Your task to perform on an android device: Search for "panasonic triple a" on target, select the first entry, add it to the cart, then select checkout. Image 0: 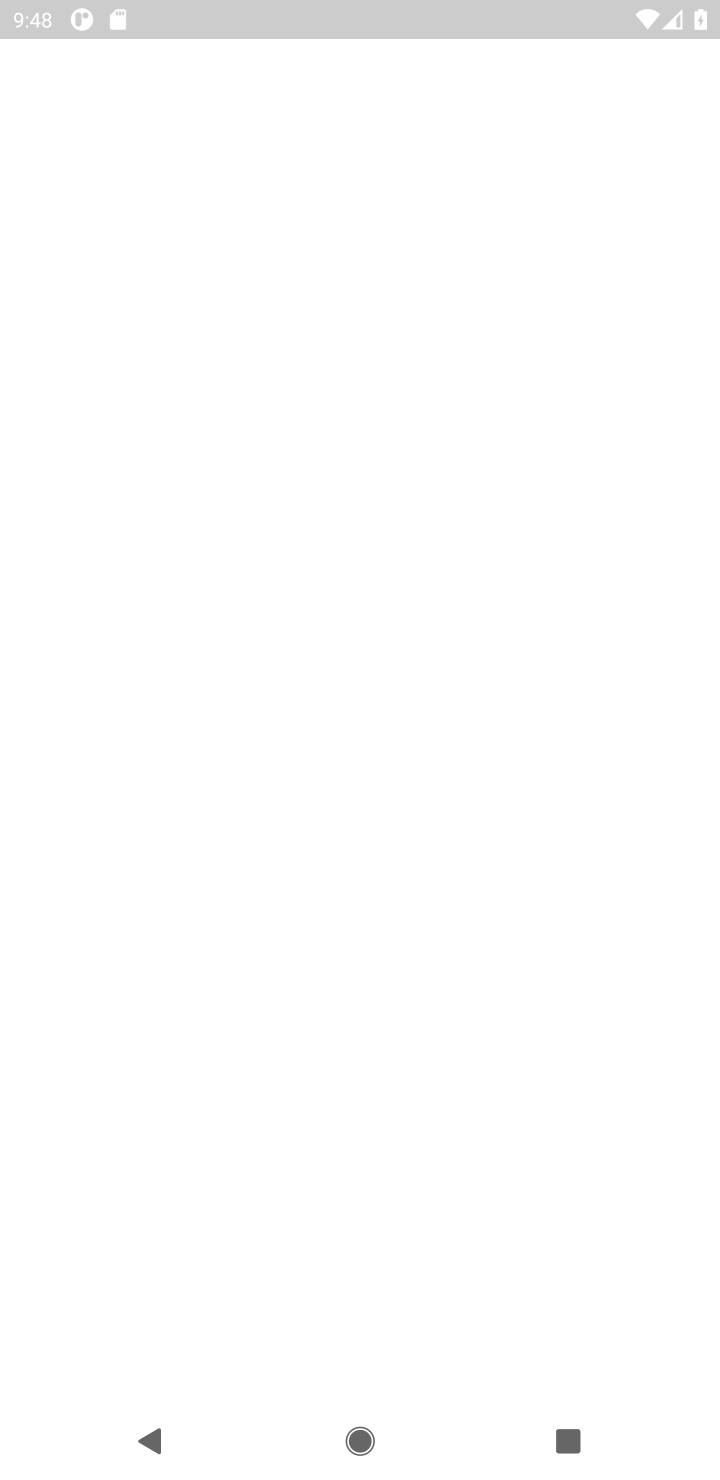
Step 0: press home button
Your task to perform on an android device: Search for "panasonic triple a" on target, select the first entry, add it to the cart, then select checkout. Image 1: 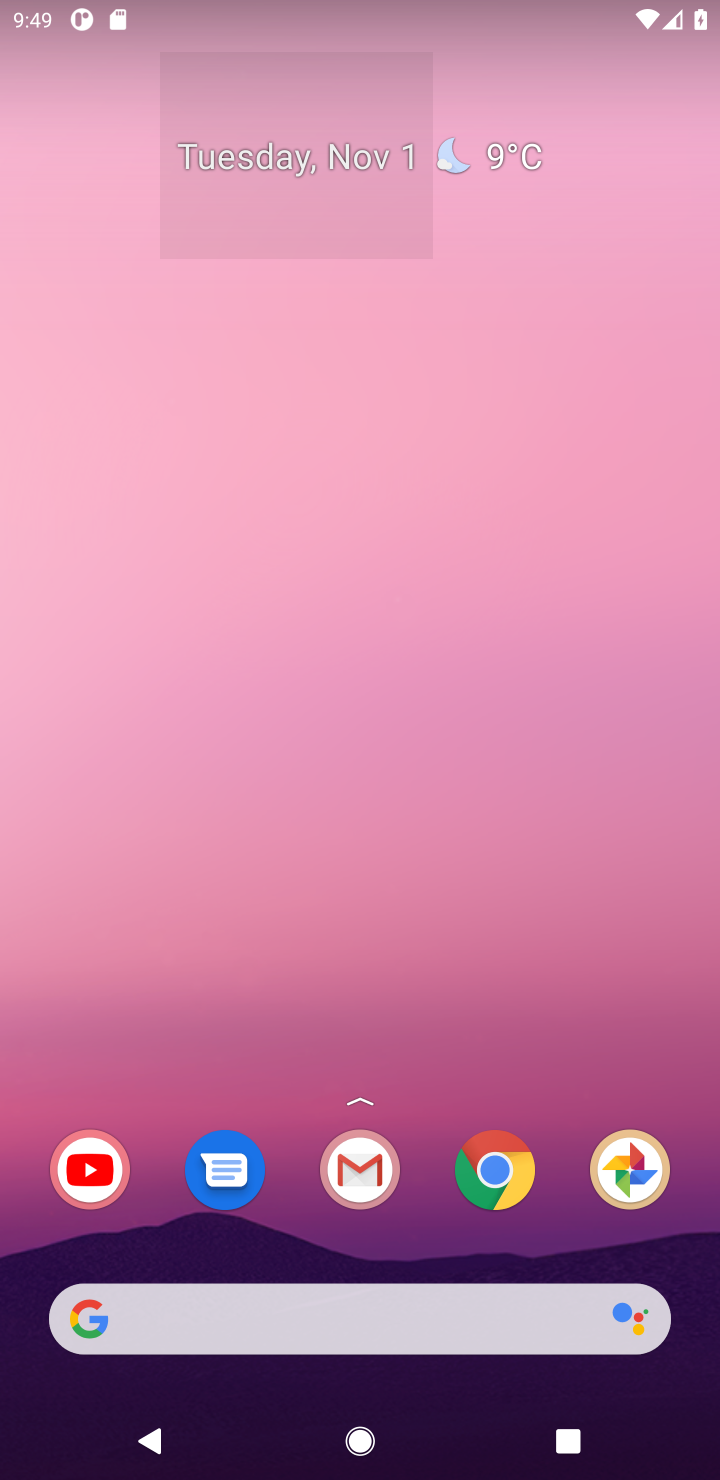
Step 1: click (482, 1178)
Your task to perform on an android device: Search for "panasonic triple a" on target, select the first entry, add it to the cart, then select checkout. Image 2: 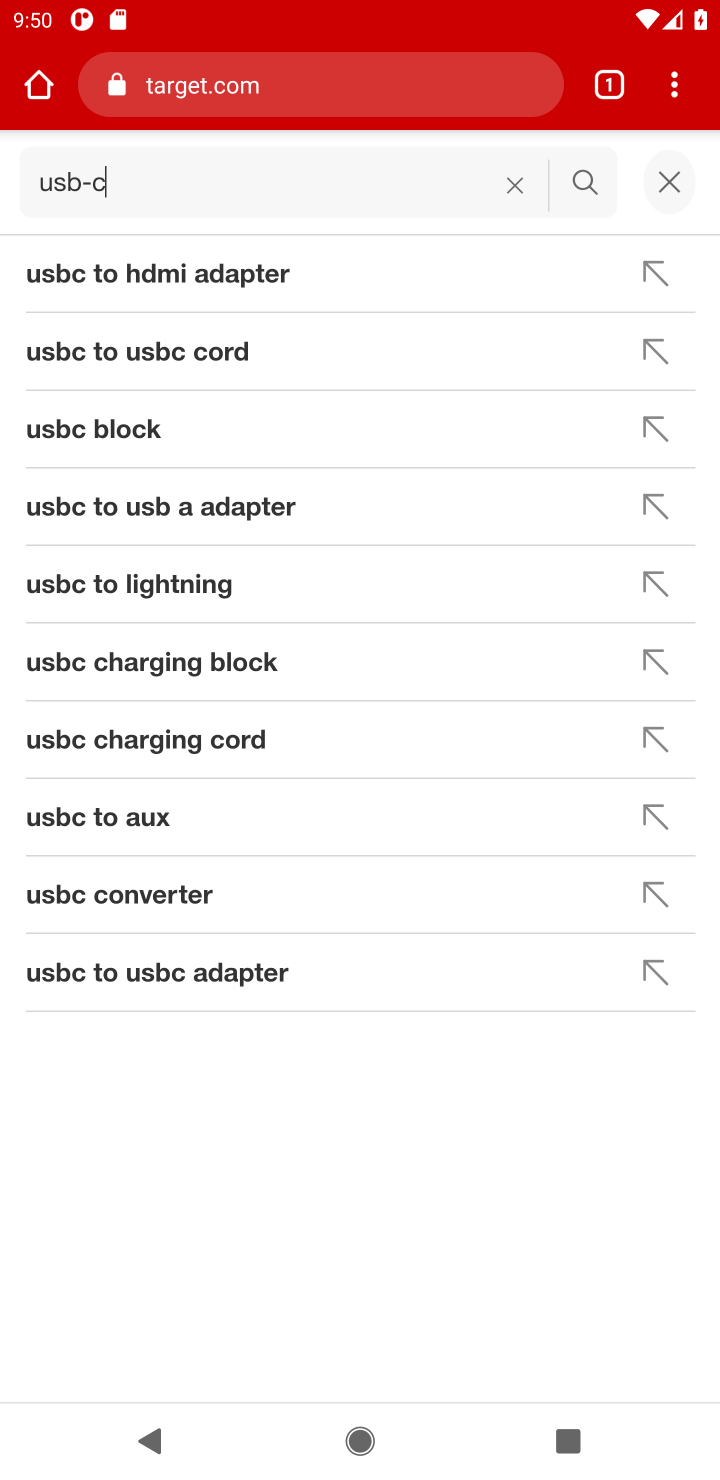
Step 2: click (659, 176)
Your task to perform on an android device: Search for "panasonic triple a" on target, select the first entry, add it to the cart, then select checkout. Image 3: 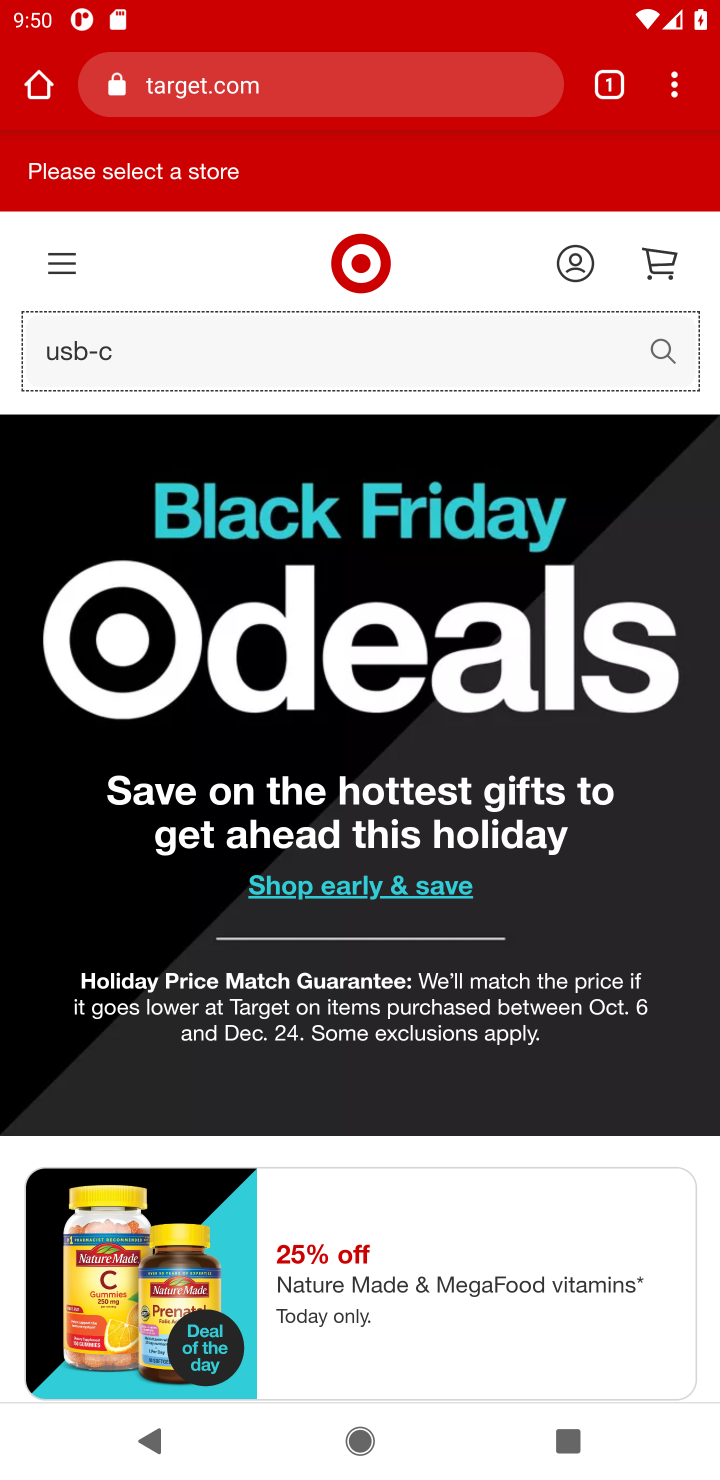
Step 3: click (545, 370)
Your task to perform on an android device: Search for "panasonic triple a" on target, select the first entry, add it to the cart, then select checkout. Image 4: 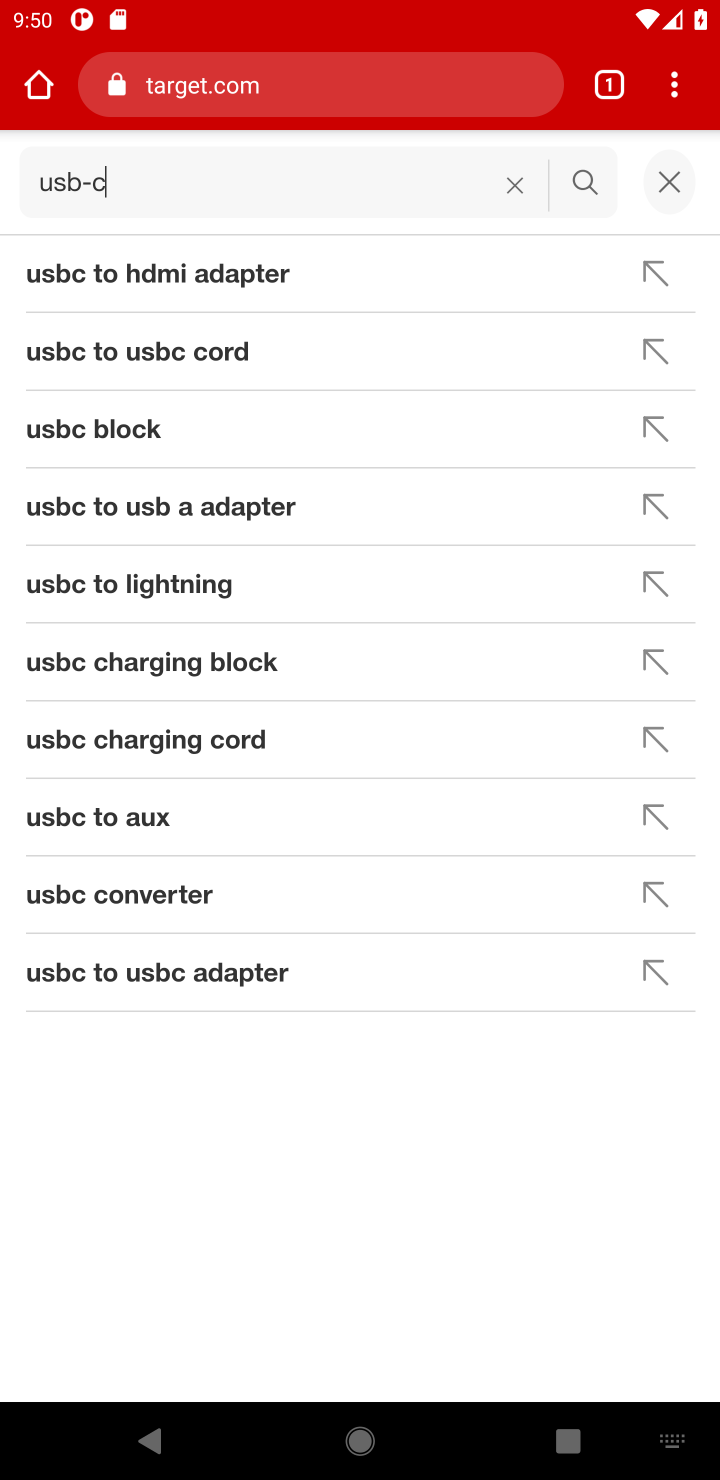
Step 4: click (663, 181)
Your task to perform on an android device: Search for "panasonic triple a" on target, select the first entry, add it to the cart, then select checkout. Image 5: 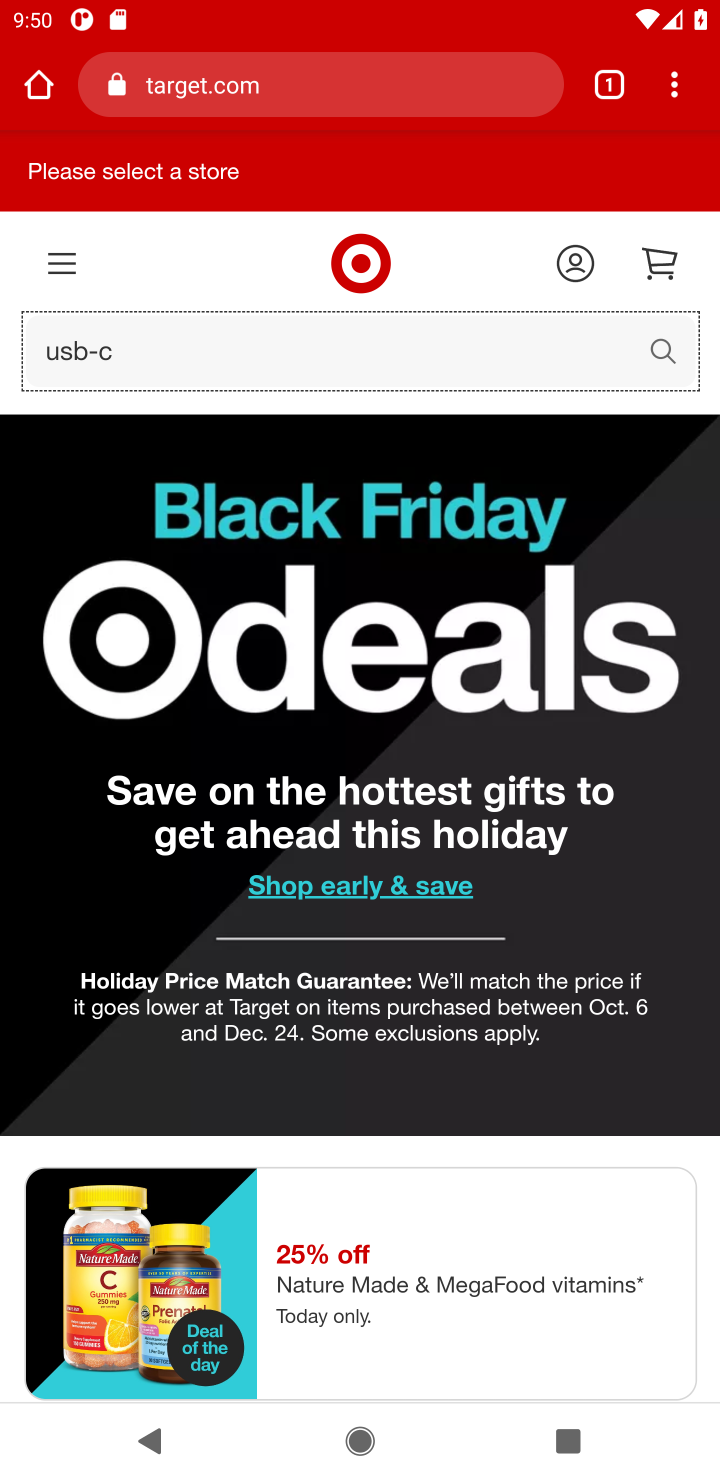
Step 5: click (555, 346)
Your task to perform on an android device: Search for "panasonic triple a" on target, select the first entry, add it to the cart, then select checkout. Image 6: 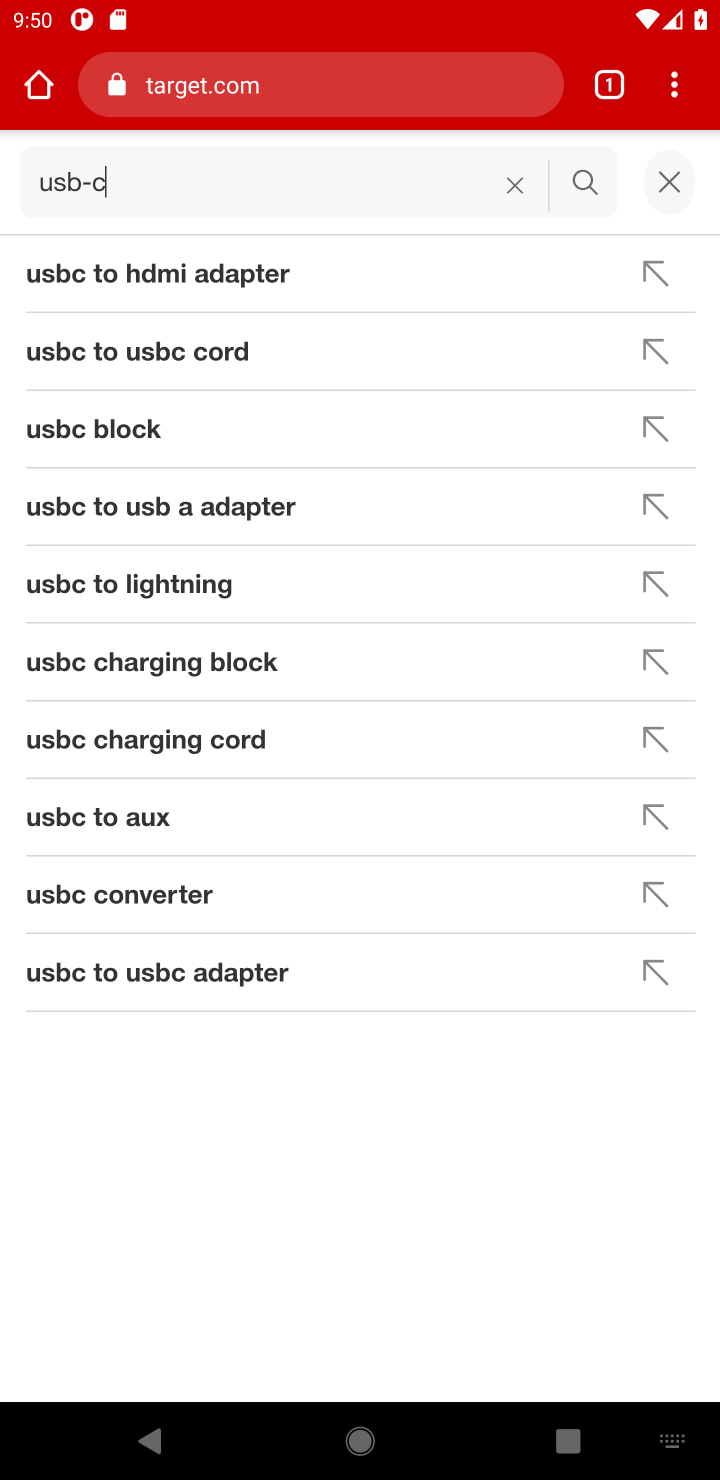
Step 6: click (518, 189)
Your task to perform on an android device: Search for "panasonic triple a" on target, select the first entry, add it to the cart, then select checkout. Image 7: 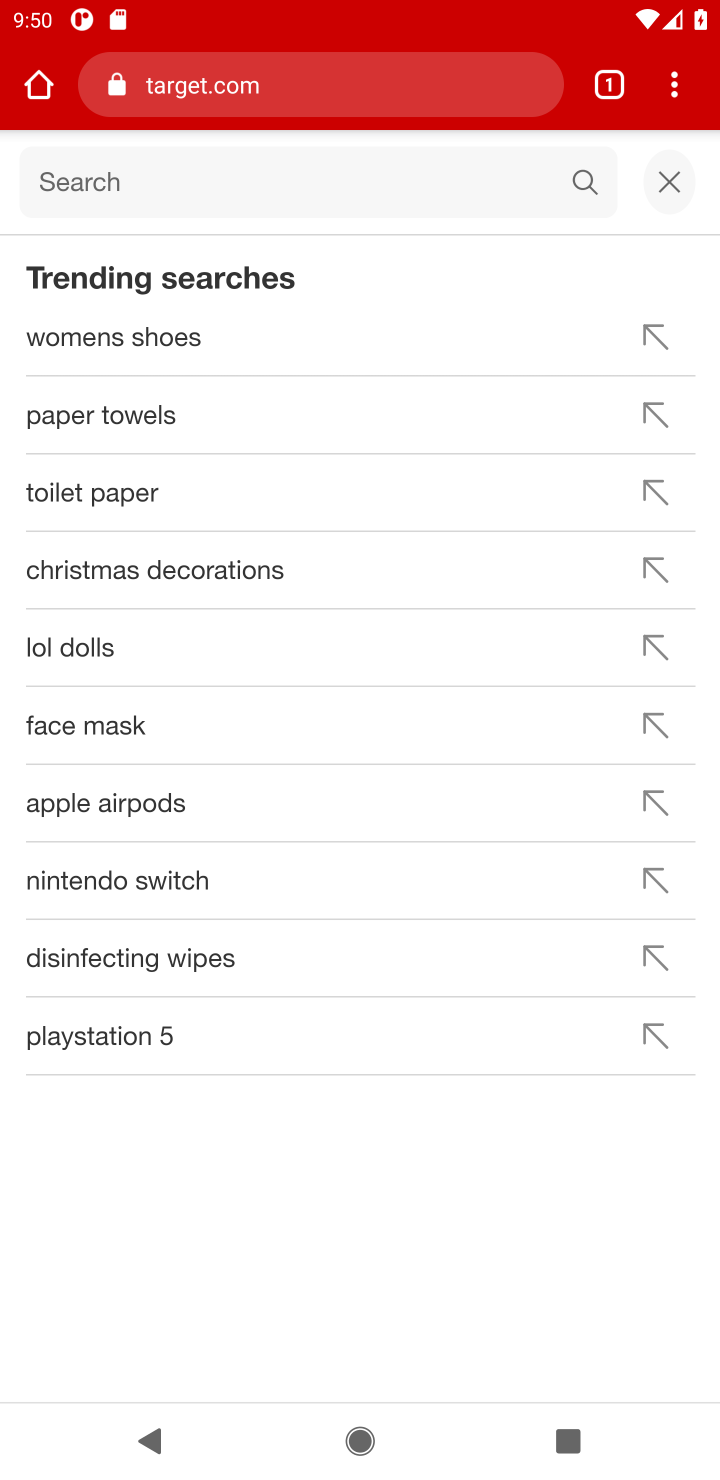
Step 7: type "panasonic triple a"
Your task to perform on an android device: Search for "panasonic triple a" on target, select the first entry, add it to the cart, then select checkout. Image 8: 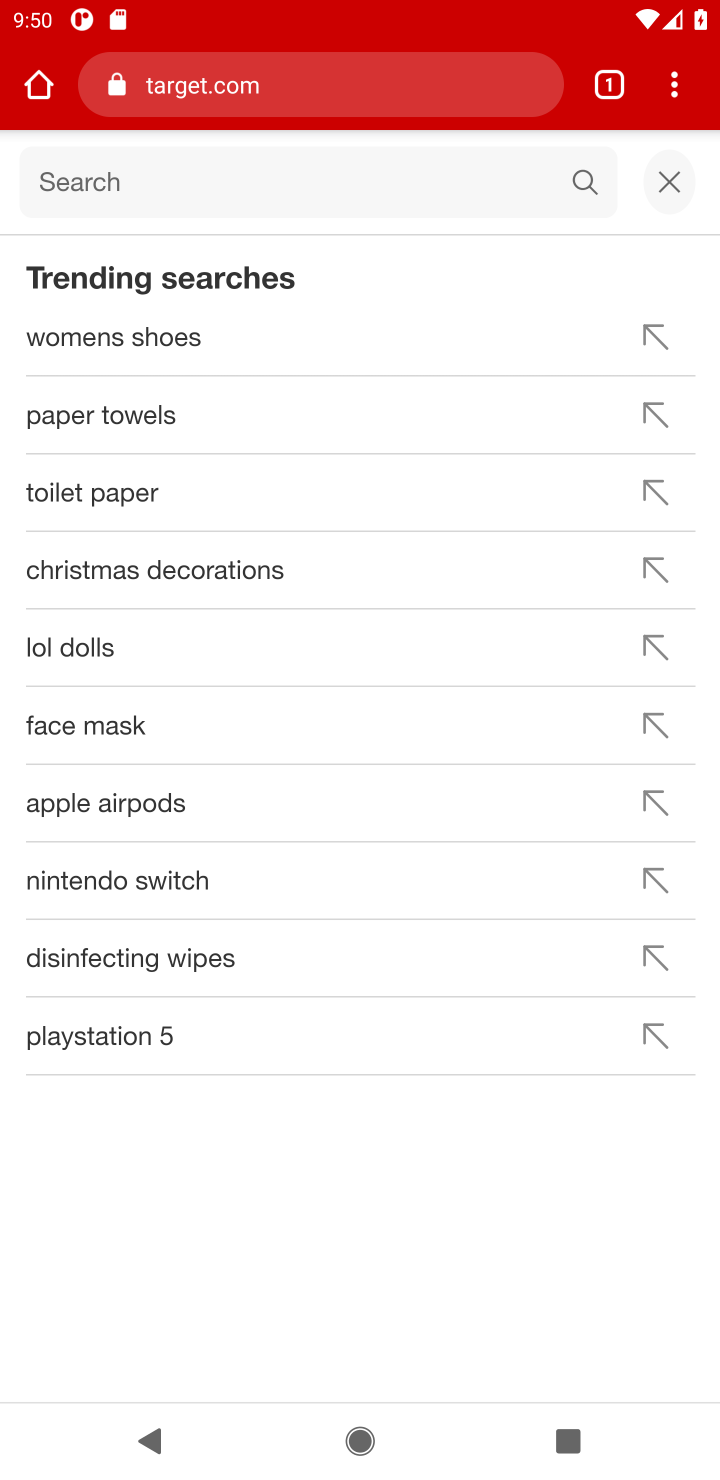
Step 8: click (350, 166)
Your task to perform on an android device: Search for "panasonic triple a" on target, select the first entry, add it to the cart, then select checkout. Image 9: 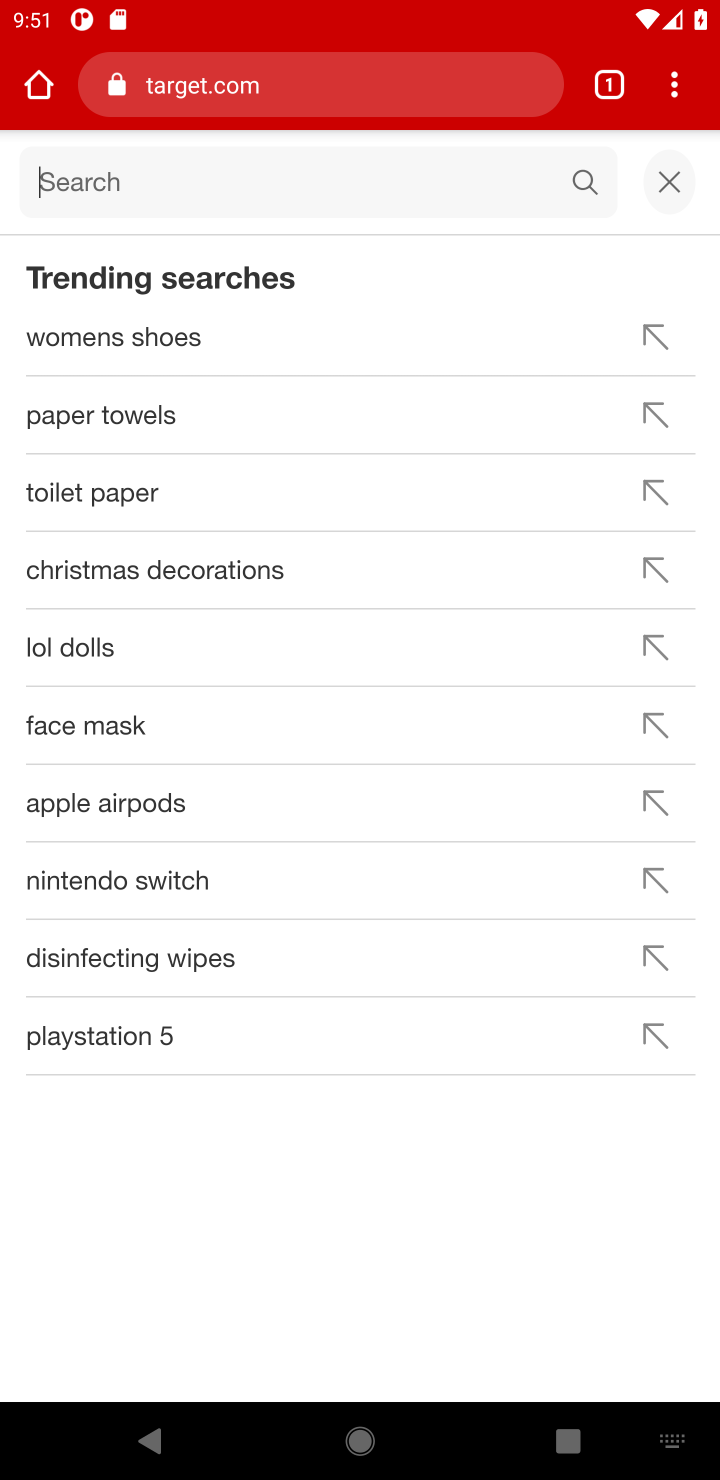
Step 9: type ""panasonic triple a"
Your task to perform on an android device: Search for "panasonic triple a" on target, select the first entry, add it to the cart, then select checkout. Image 10: 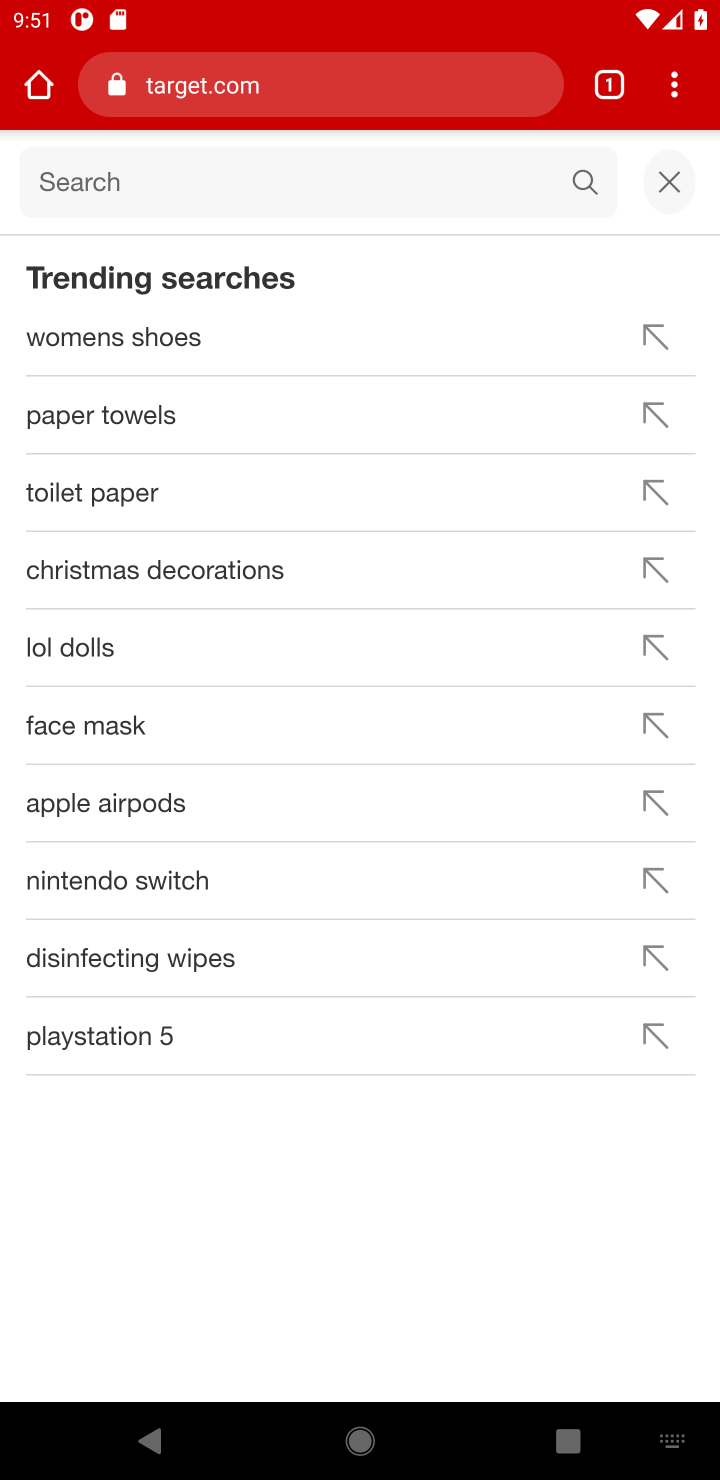
Step 10: type ""panasonic triple a"
Your task to perform on an android device: Search for "panasonic triple a" on target, select the first entry, add it to the cart, then select checkout. Image 11: 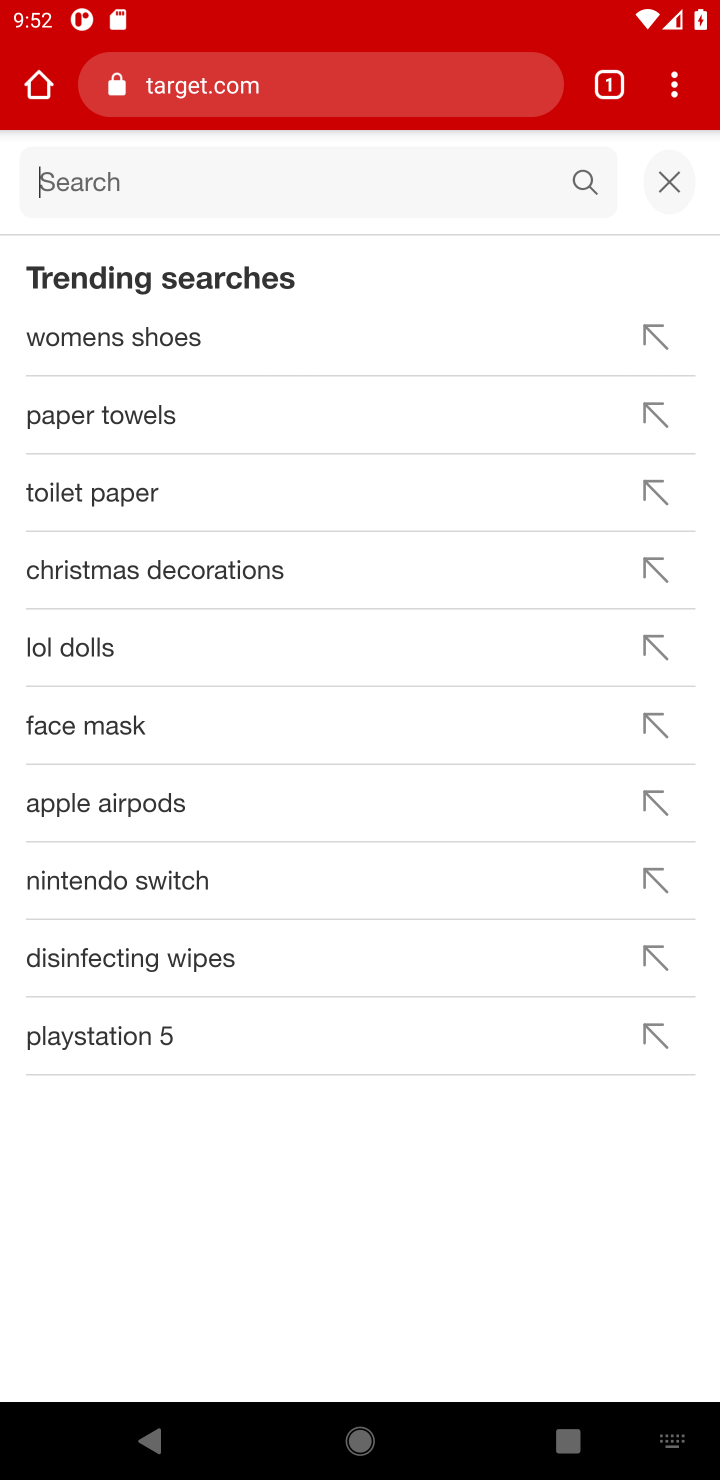
Step 11: task complete